Your task to perform on an android device: Check the weather Image 0: 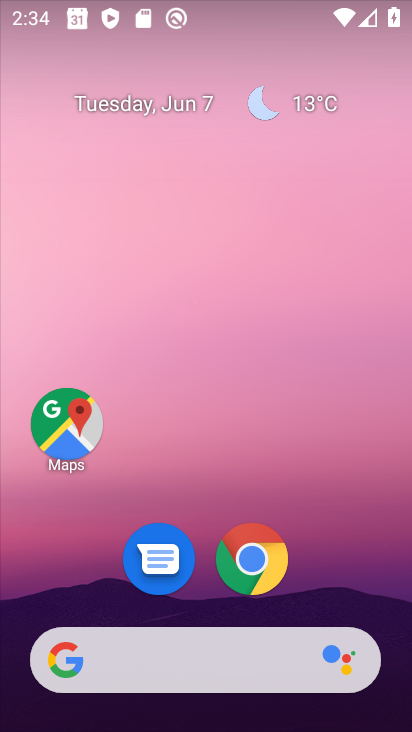
Step 0: drag from (357, 573) to (264, 76)
Your task to perform on an android device: Check the weather Image 1: 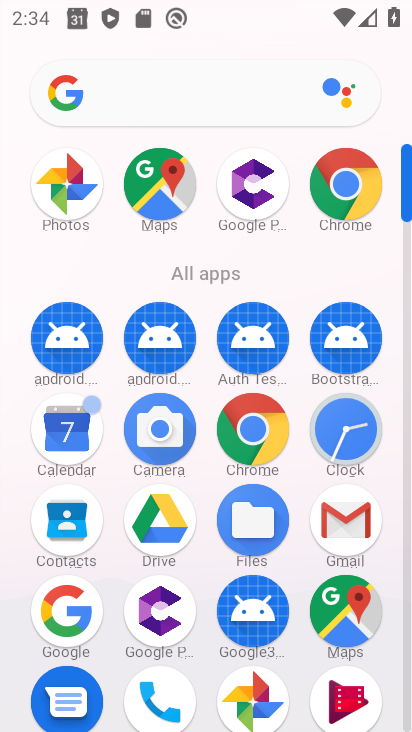
Step 1: click (60, 608)
Your task to perform on an android device: Check the weather Image 2: 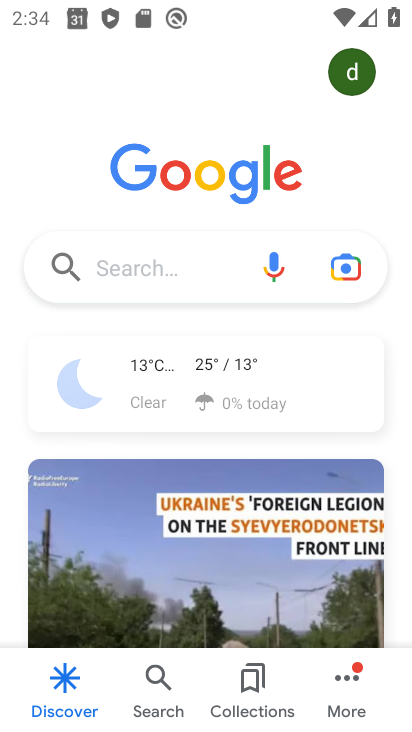
Step 2: click (220, 399)
Your task to perform on an android device: Check the weather Image 3: 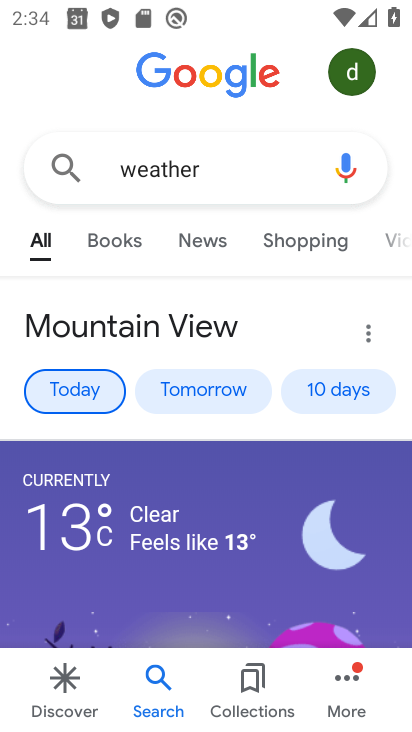
Step 3: task complete